Your task to perform on an android device: turn off data saver in the chrome app Image 0: 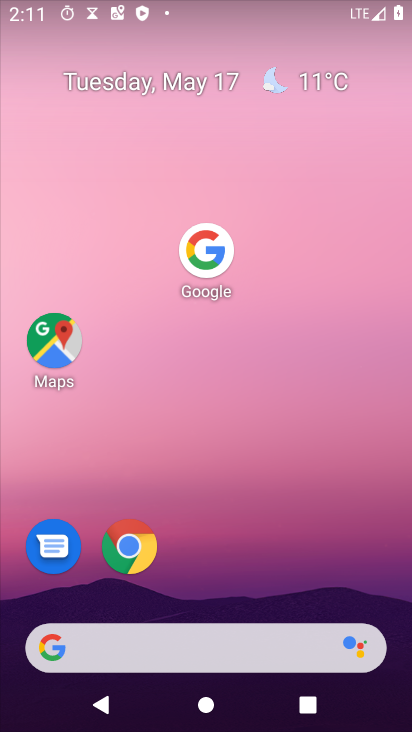
Step 0: press home button
Your task to perform on an android device: turn off data saver in the chrome app Image 1: 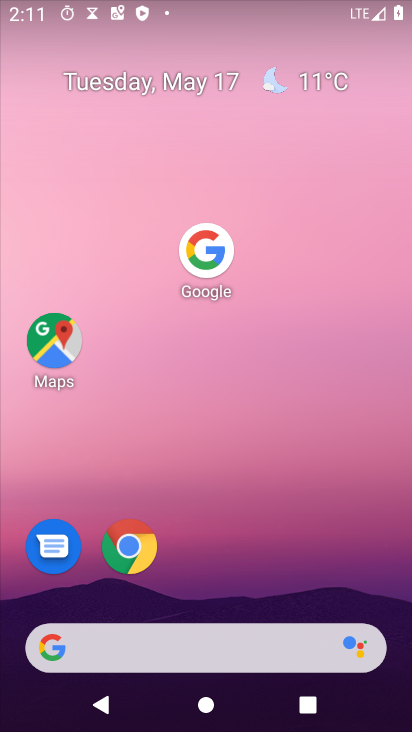
Step 1: click (127, 555)
Your task to perform on an android device: turn off data saver in the chrome app Image 2: 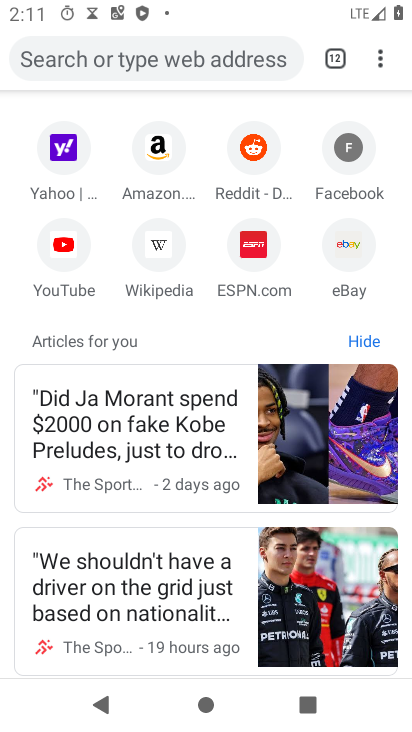
Step 2: drag from (382, 61) to (237, 503)
Your task to perform on an android device: turn off data saver in the chrome app Image 3: 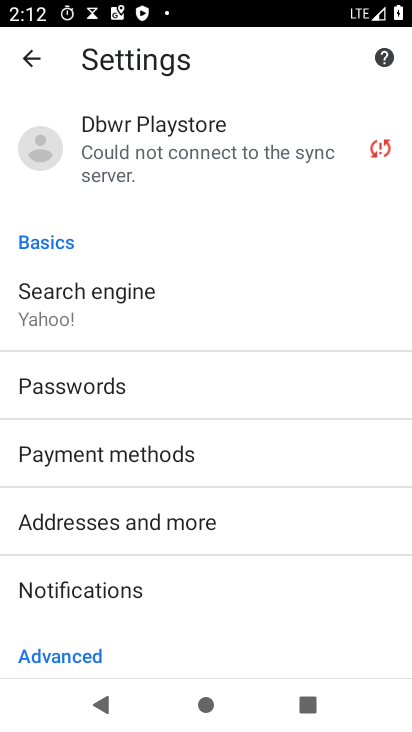
Step 3: drag from (230, 484) to (315, 240)
Your task to perform on an android device: turn off data saver in the chrome app Image 4: 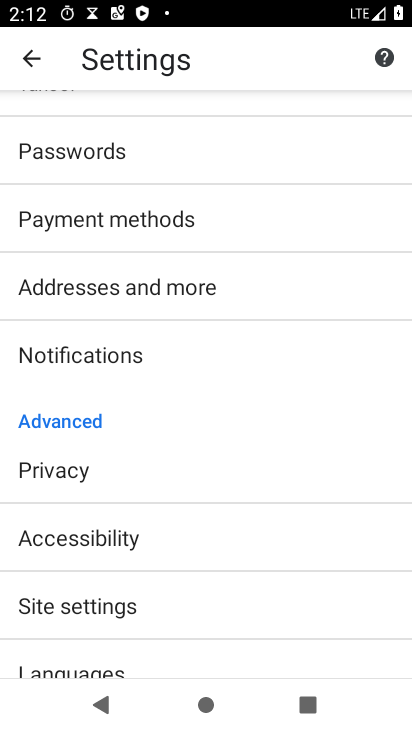
Step 4: drag from (226, 545) to (350, 192)
Your task to perform on an android device: turn off data saver in the chrome app Image 5: 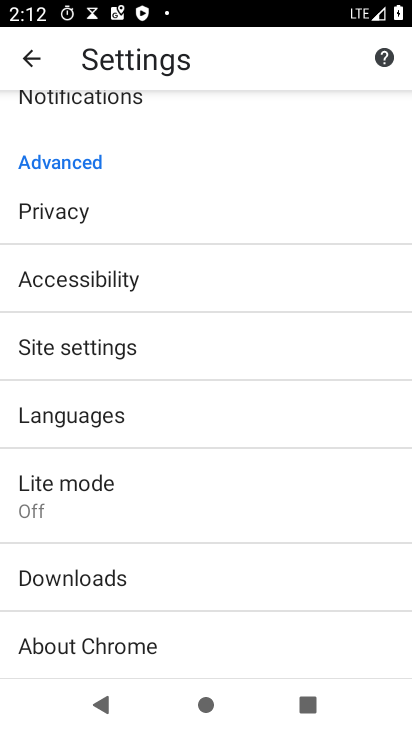
Step 5: click (84, 497)
Your task to perform on an android device: turn off data saver in the chrome app Image 6: 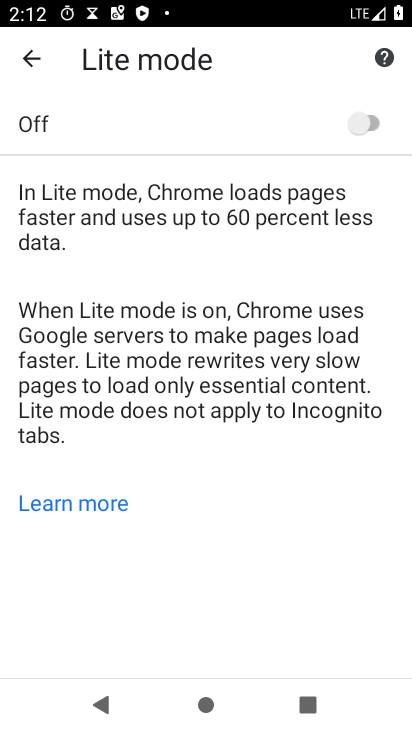
Step 6: task complete